Your task to perform on an android device: clear history in the chrome app Image 0: 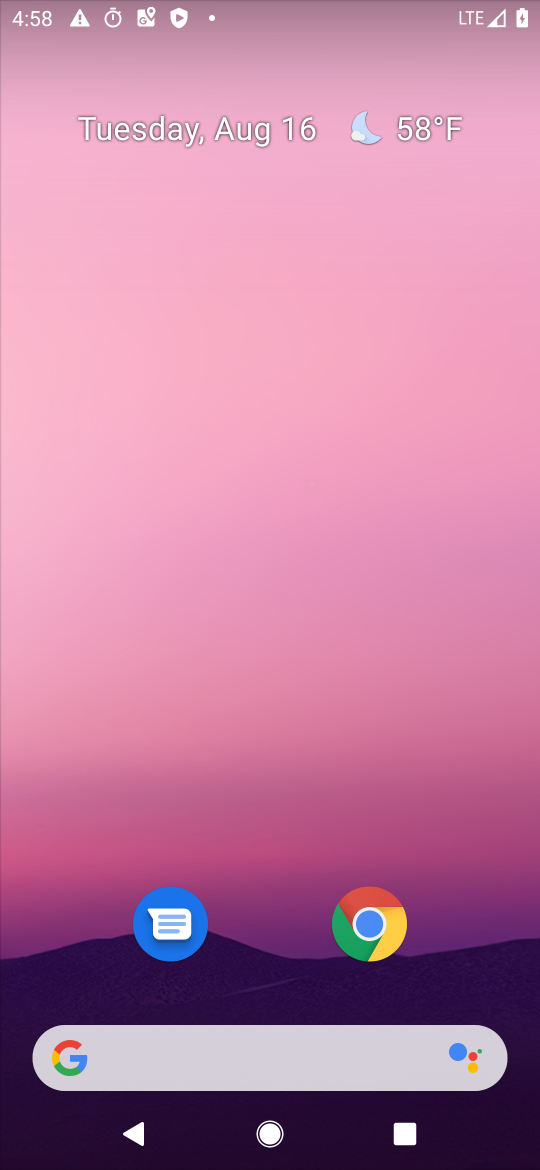
Step 0: click (384, 891)
Your task to perform on an android device: clear history in the chrome app Image 1: 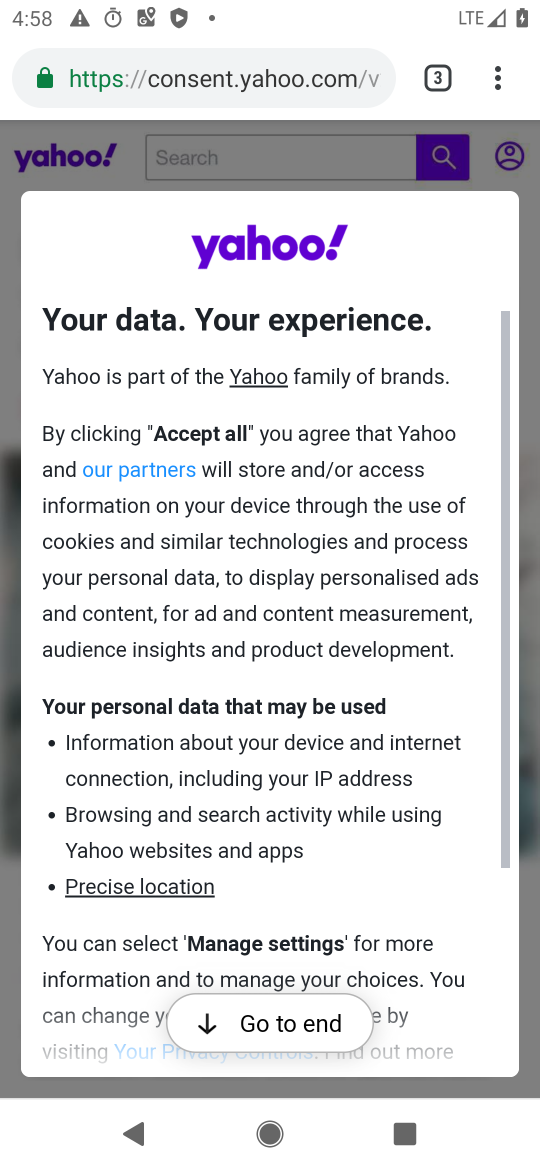
Step 1: click (505, 80)
Your task to perform on an android device: clear history in the chrome app Image 2: 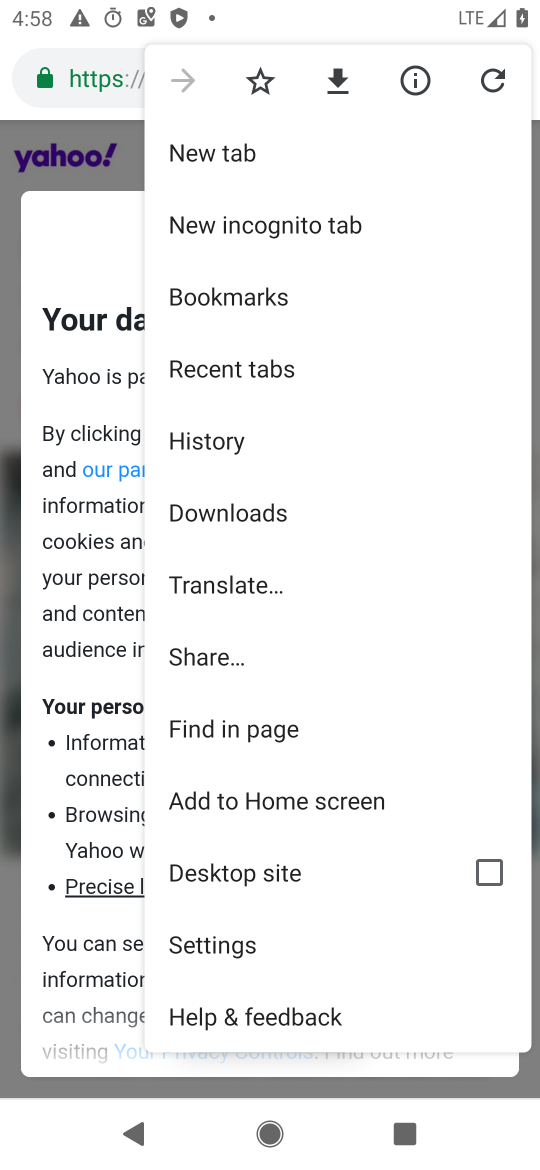
Step 2: click (252, 431)
Your task to perform on an android device: clear history in the chrome app Image 3: 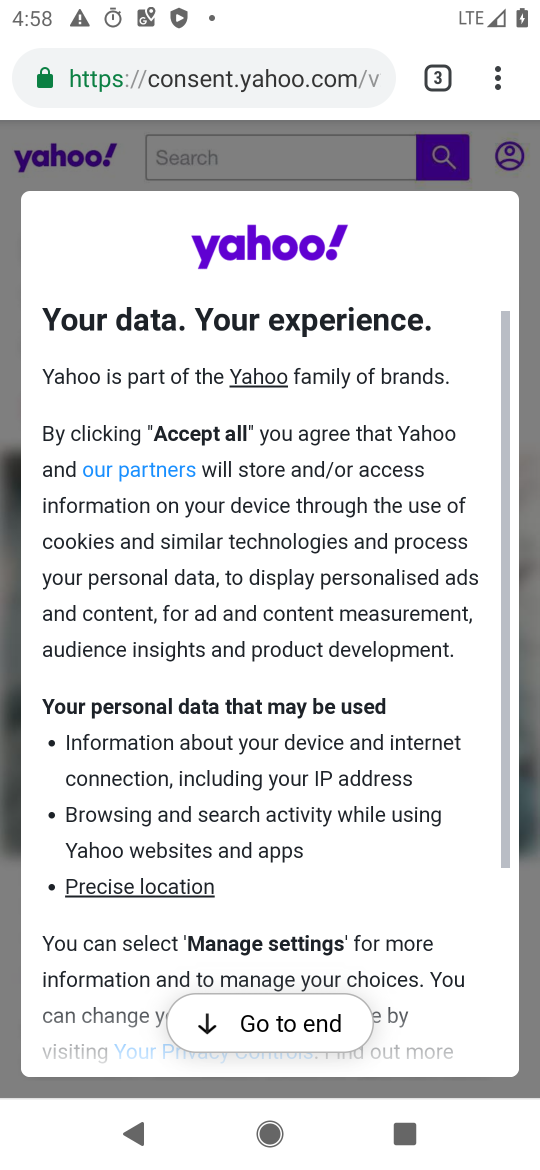
Step 3: click (222, 439)
Your task to perform on an android device: clear history in the chrome app Image 4: 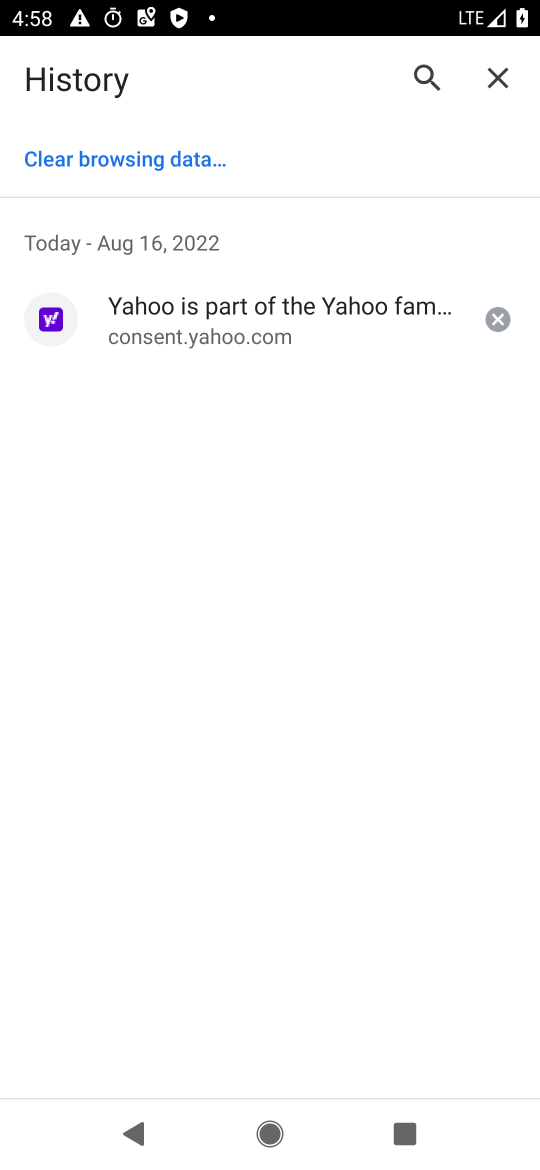
Step 4: click (155, 160)
Your task to perform on an android device: clear history in the chrome app Image 5: 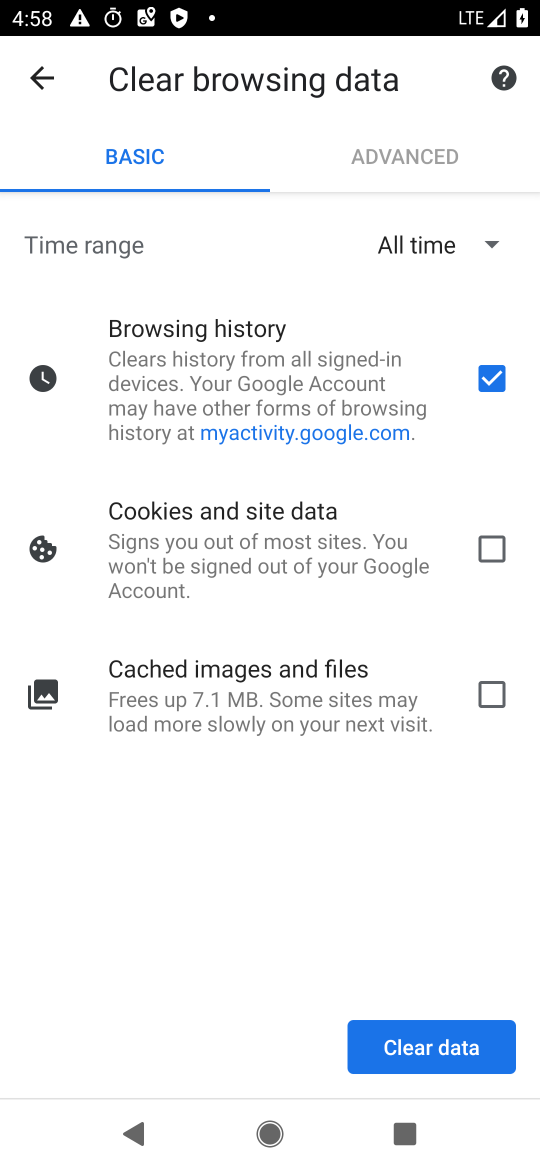
Step 5: click (486, 542)
Your task to perform on an android device: clear history in the chrome app Image 6: 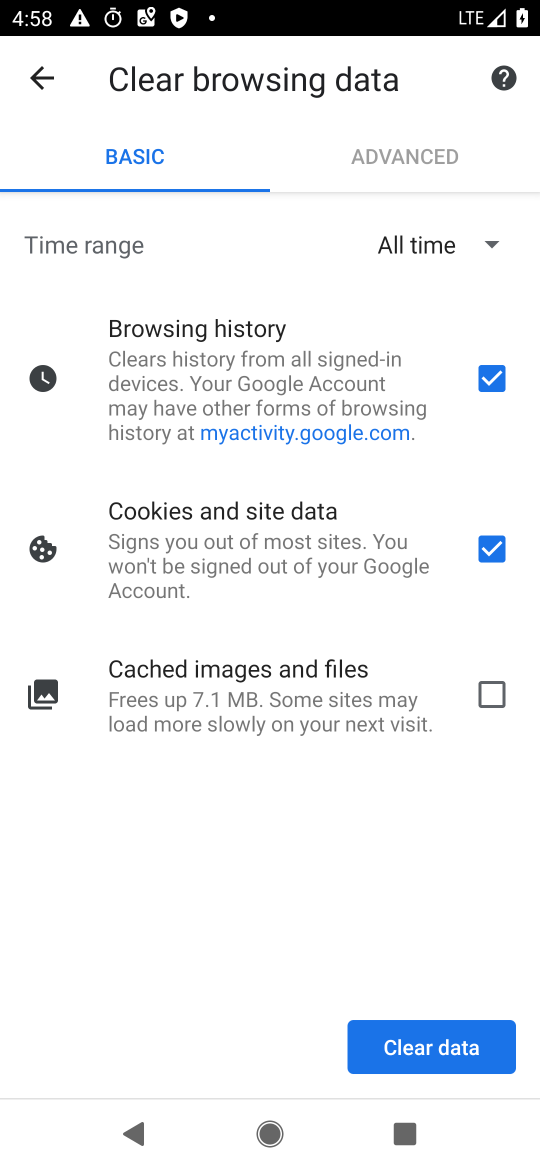
Step 6: click (490, 699)
Your task to perform on an android device: clear history in the chrome app Image 7: 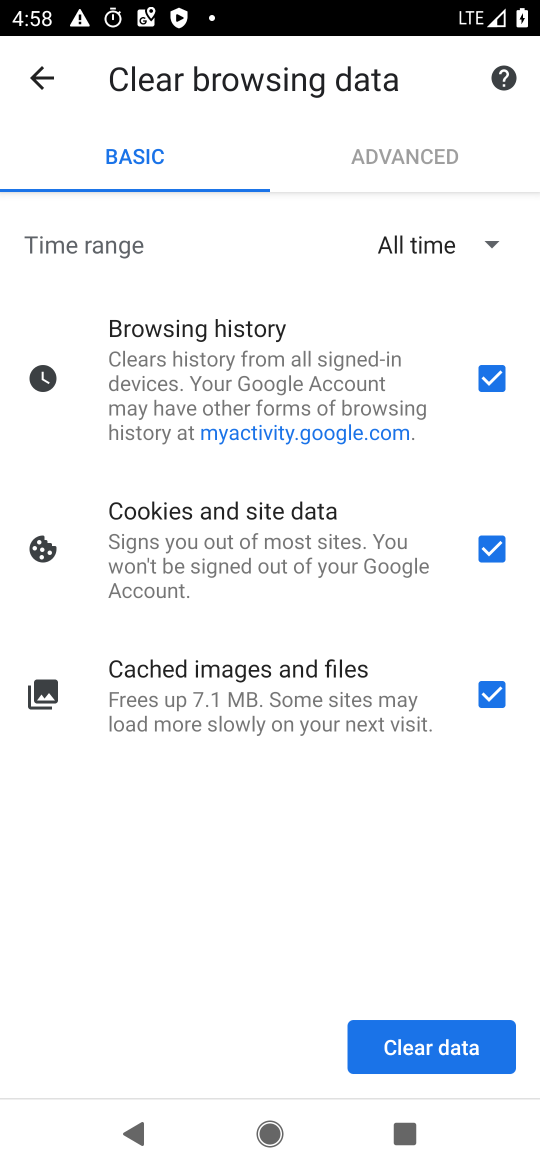
Step 7: click (447, 1053)
Your task to perform on an android device: clear history in the chrome app Image 8: 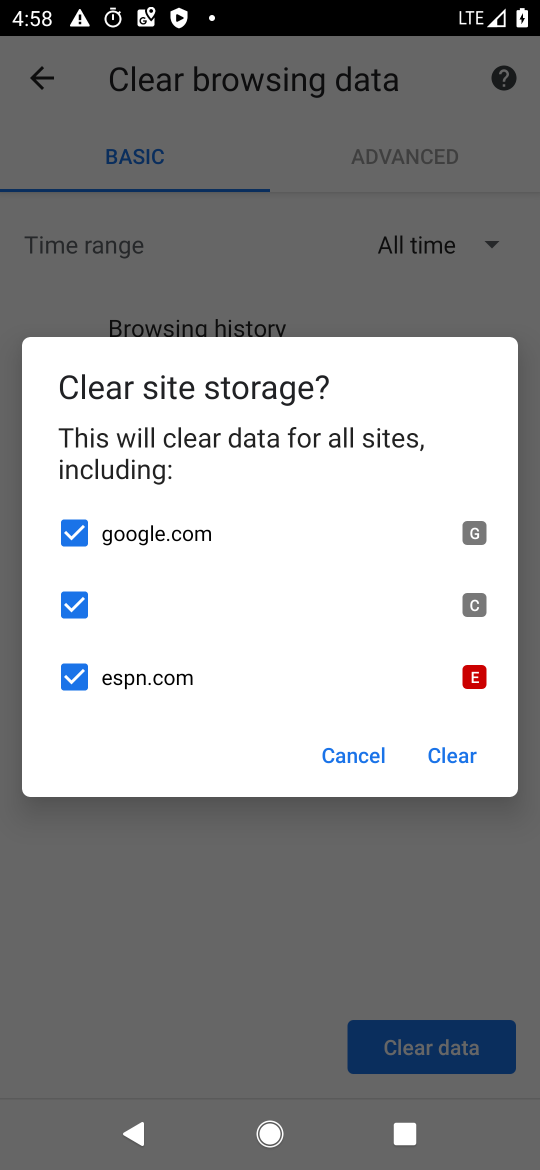
Step 8: click (428, 746)
Your task to perform on an android device: clear history in the chrome app Image 9: 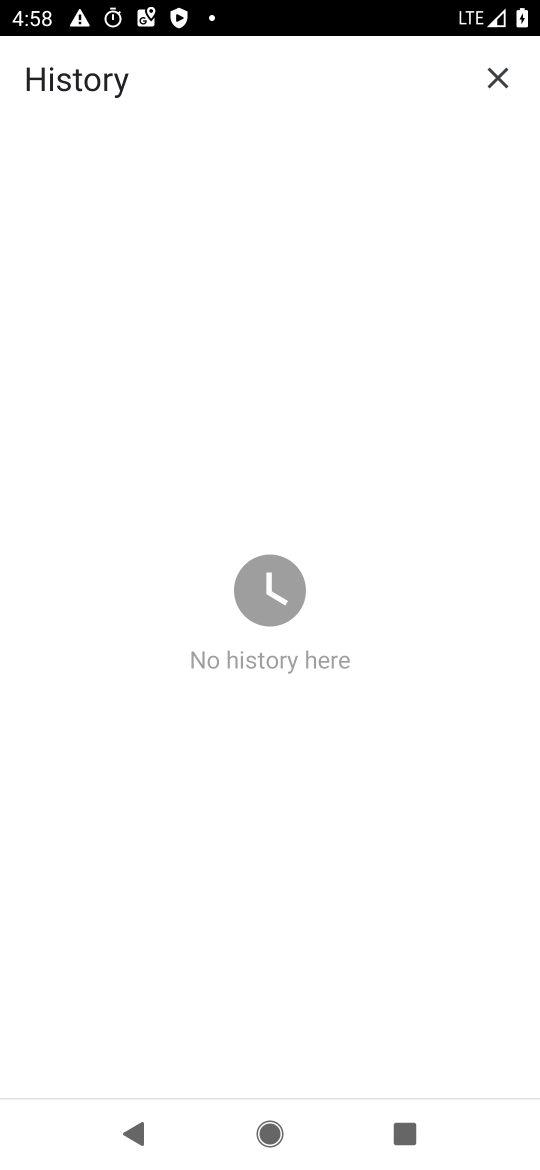
Step 9: task complete